Your task to perform on an android device: Open the calendar app, open the side menu, and click the "Day" option Image 0: 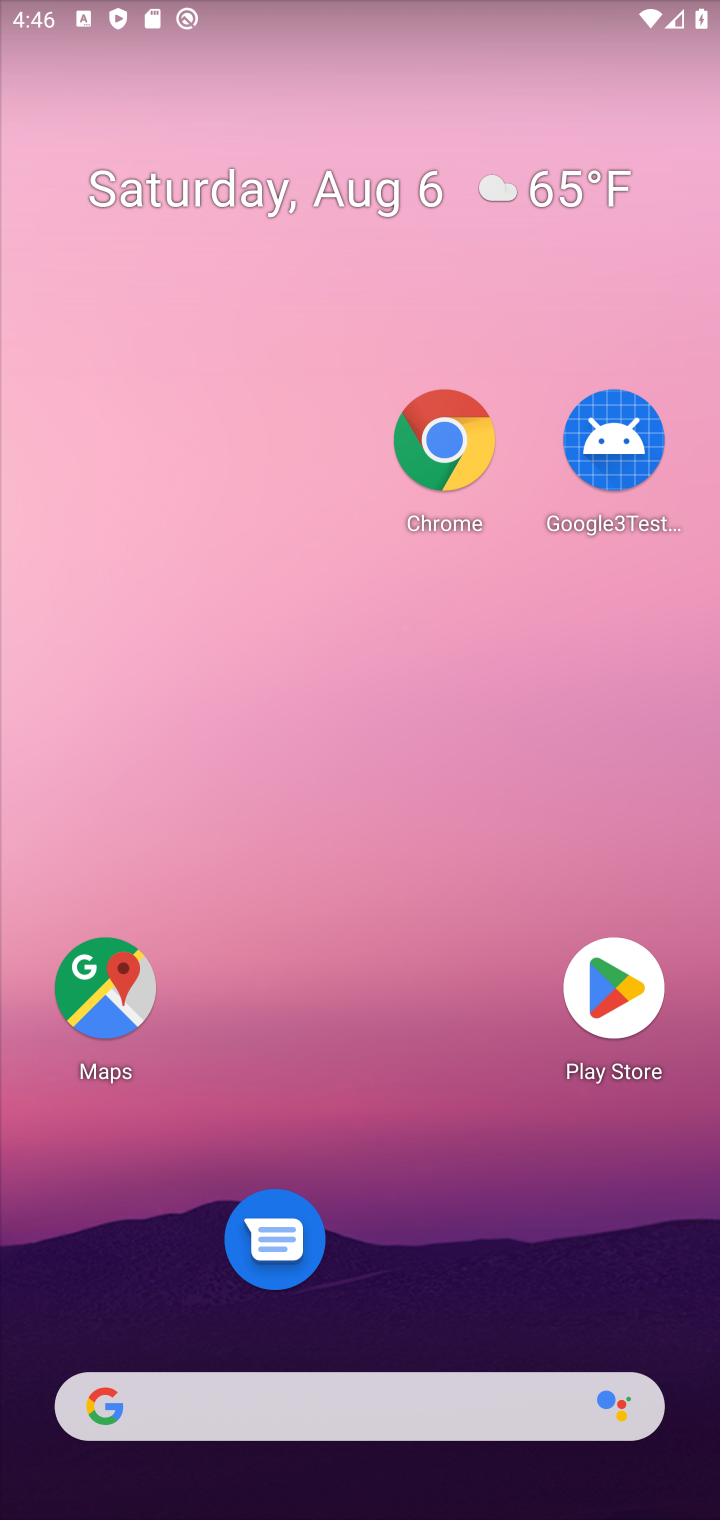
Step 0: drag from (437, 1378) to (402, 328)
Your task to perform on an android device: Open the calendar app, open the side menu, and click the "Day" option Image 1: 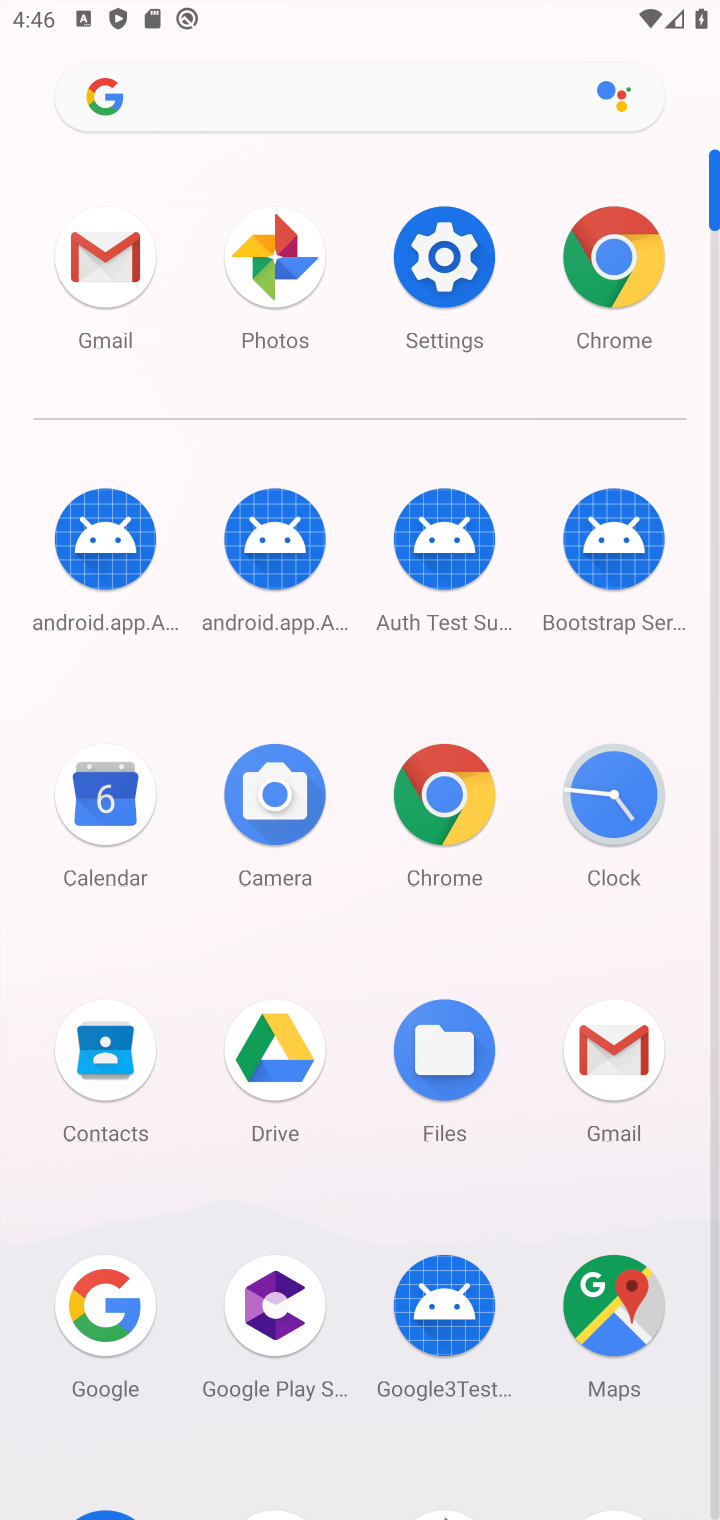
Step 1: click (141, 808)
Your task to perform on an android device: Open the calendar app, open the side menu, and click the "Day" option Image 2: 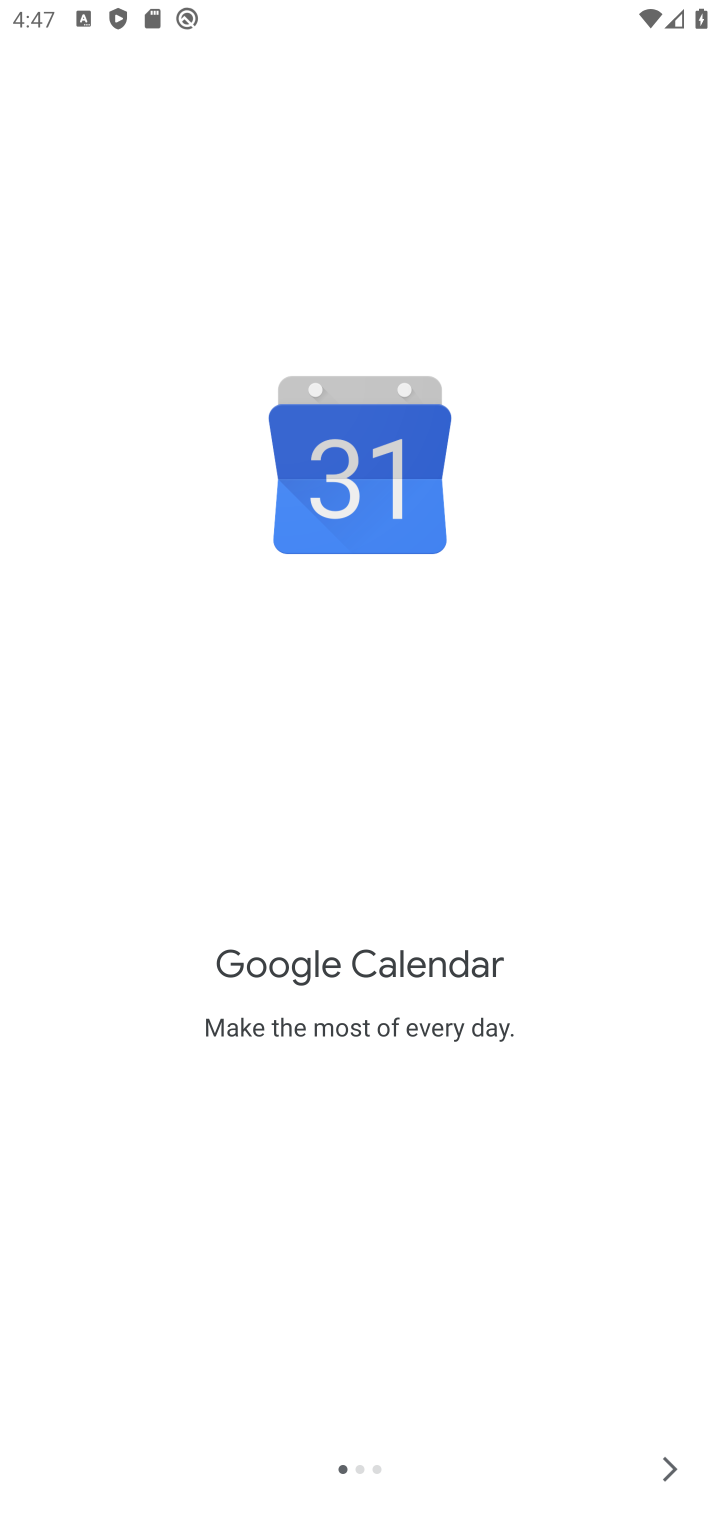
Step 2: click (666, 1464)
Your task to perform on an android device: Open the calendar app, open the side menu, and click the "Day" option Image 3: 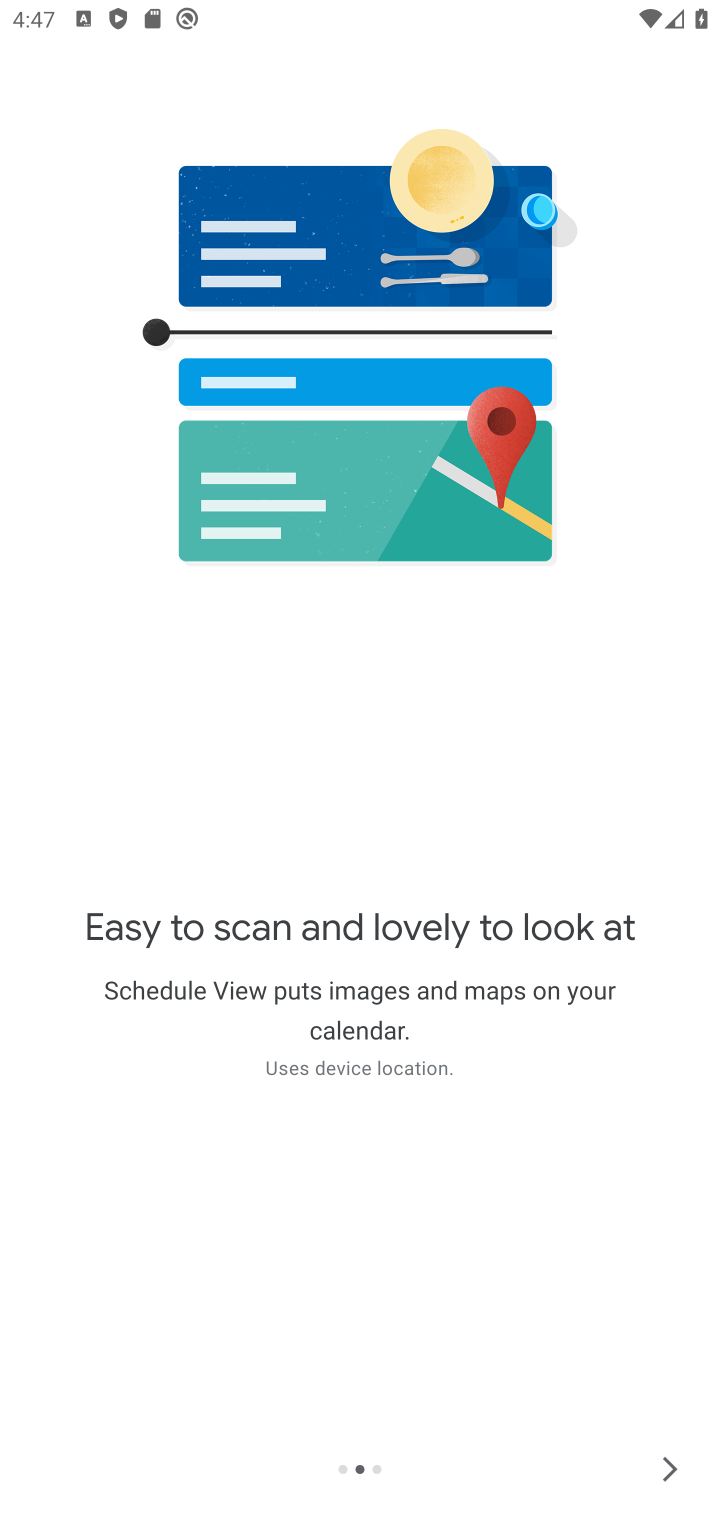
Step 3: click (666, 1464)
Your task to perform on an android device: Open the calendar app, open the side menu, and click the "Day" option Image 4: 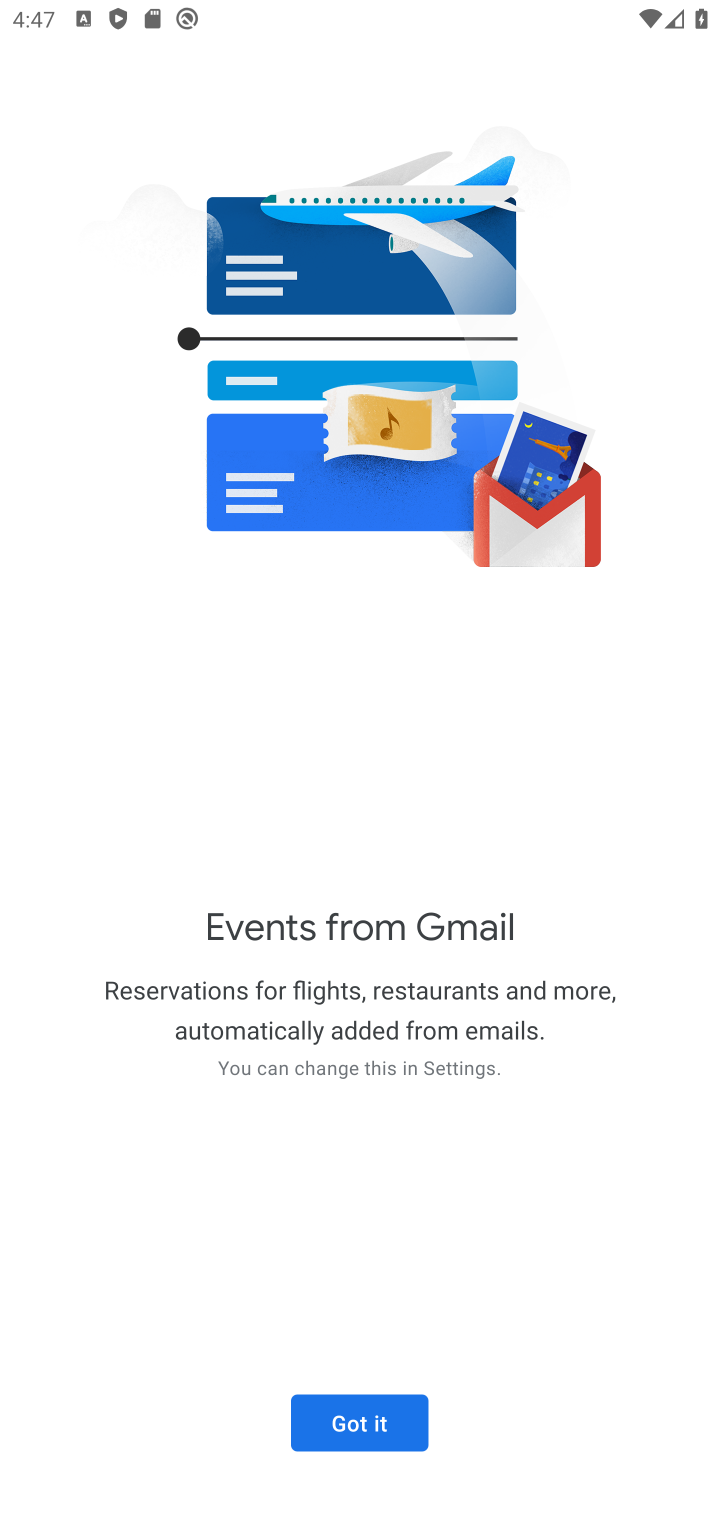
Step 4: click (365, 1405)
Your task to perform on an android device: Open the calendar app, open the side menu, and click the "Day" option Image 5: 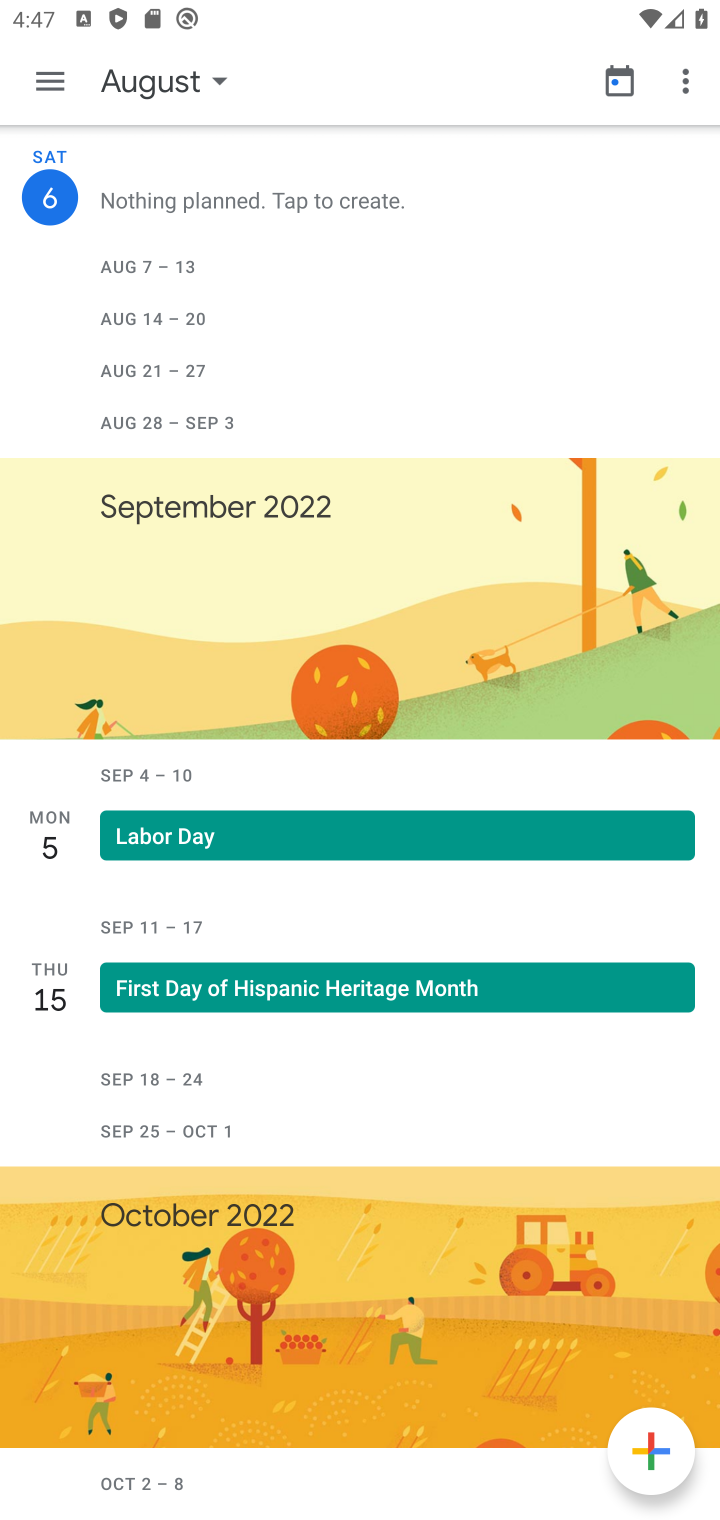
Step 5: click (53, 68)
Your task to perform on an android device: Open the calendar app, open the side menu, and click the "Day" option Image 6: 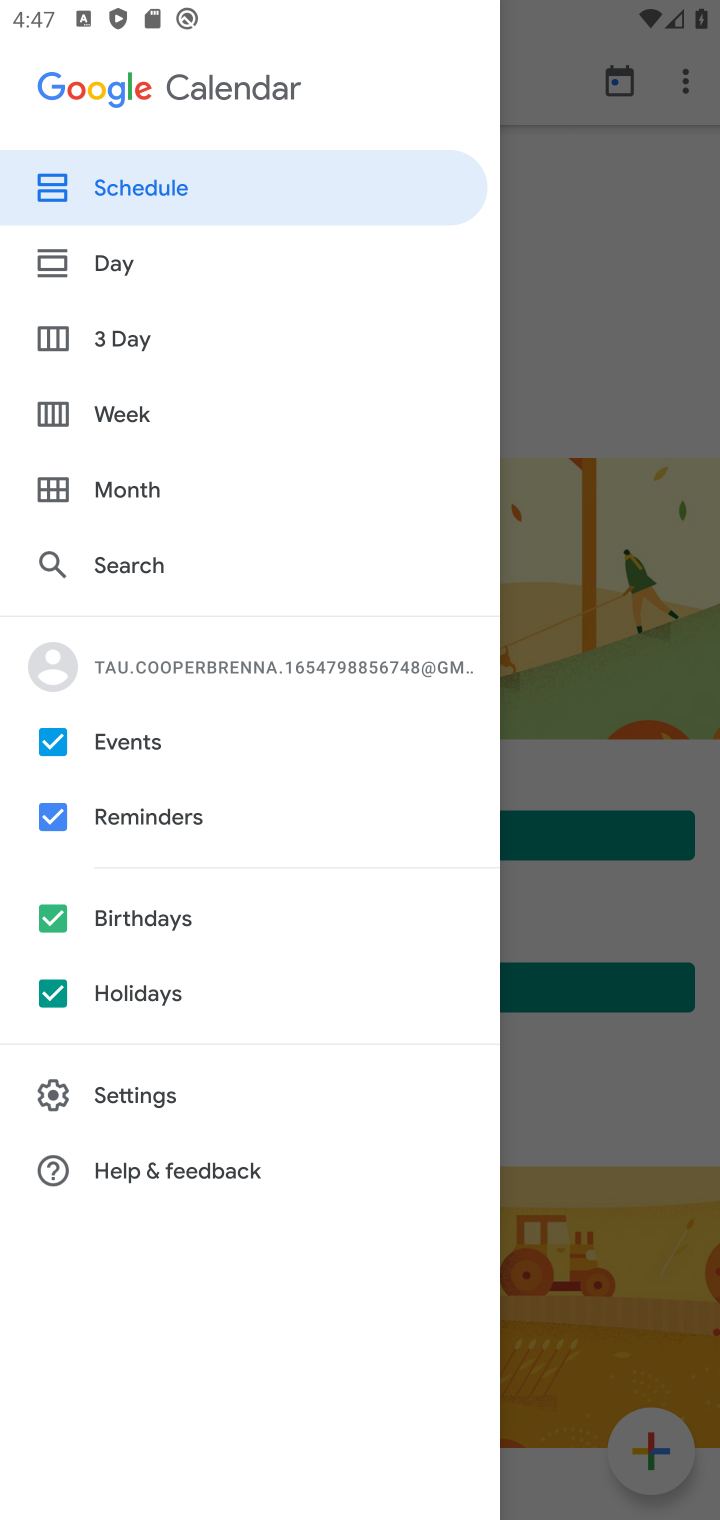
Step 6: click (116, 246)
Your task to perform on an android device: Open the calendar app, open the side menu, and click the "Day" option Image 7: 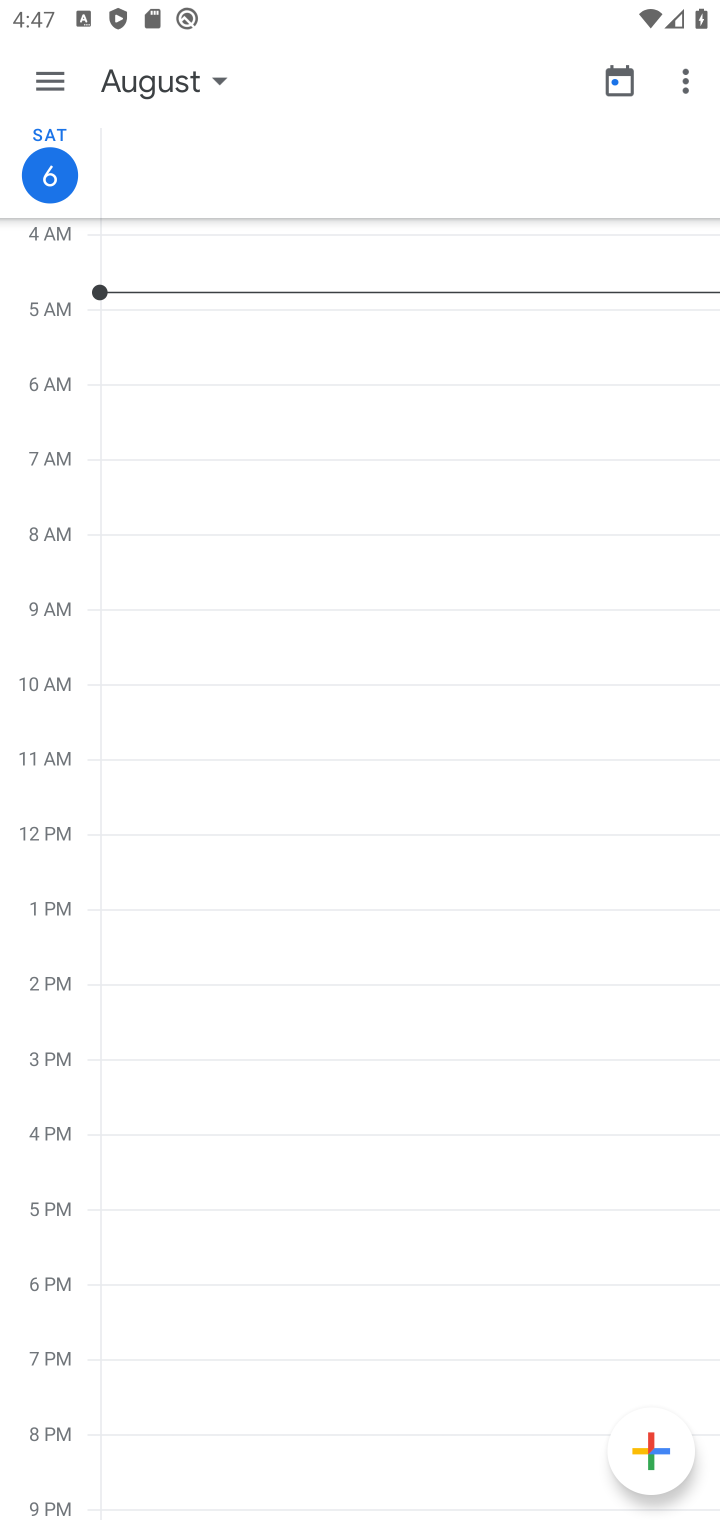
Step 7: task complete